Your task to perform on an android device: turn on airplane mode Image 0: 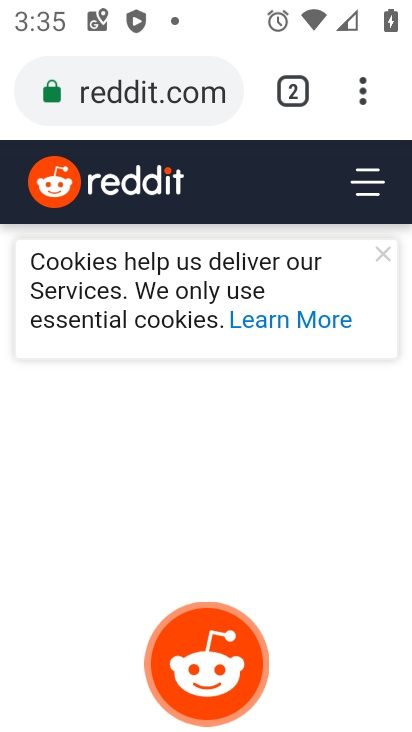
Step 0: drag from (355, 561) to (335, 248)
Your task to perform on an android device: turn on airplane mode Image 1: 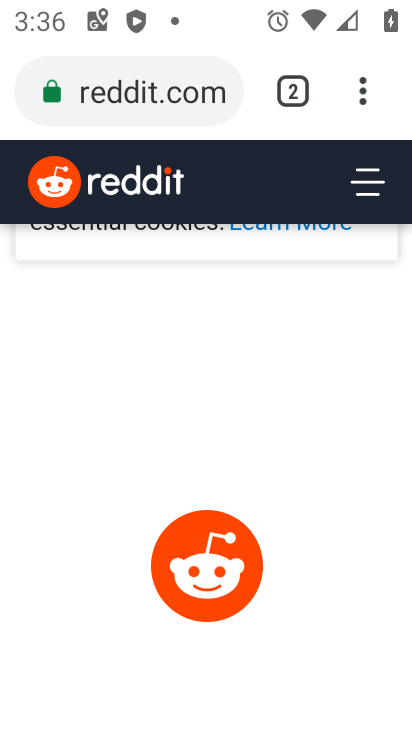
Step 1: press home button
Your task to perform on an android device: turn on airplane mode Image 2: 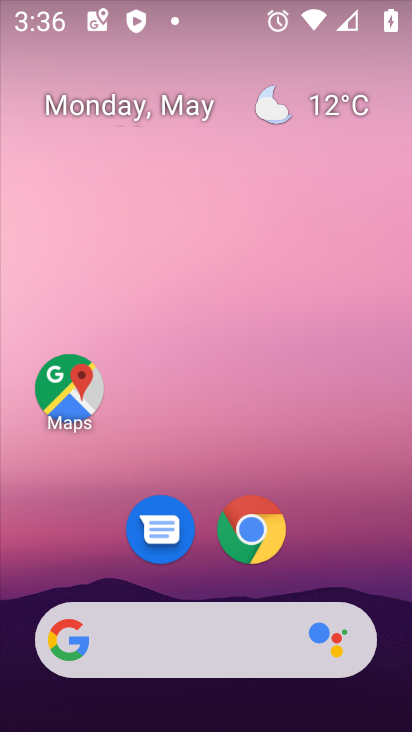
Step 2: drag from (317, 570) to (288, 63)
Your task to perform on an android device: turn on airplane mode Image 3: 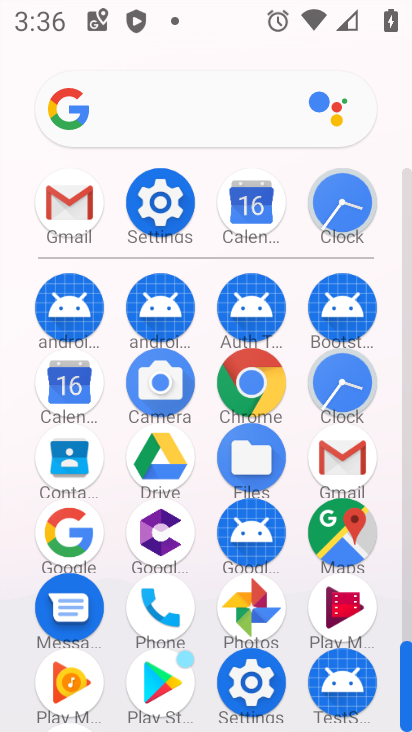
Step 3: click (159, 200)
Your task to perform on an android device: turn on airplane mode Image 4: 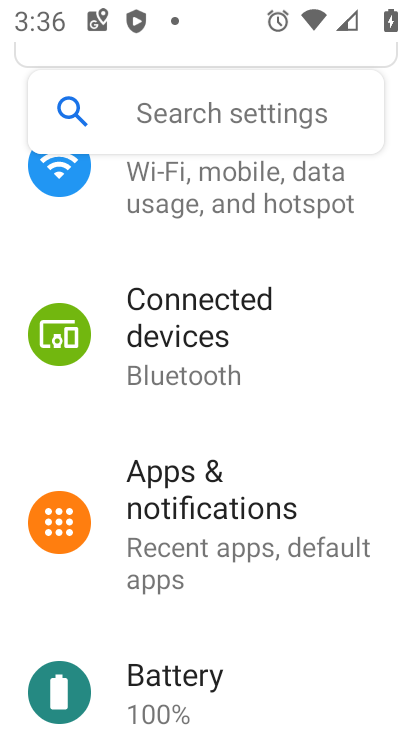
Step 4: drag from (219, 391) to (295, 619)
Your task to perform on an android device: turn on airplane mode Image 5: 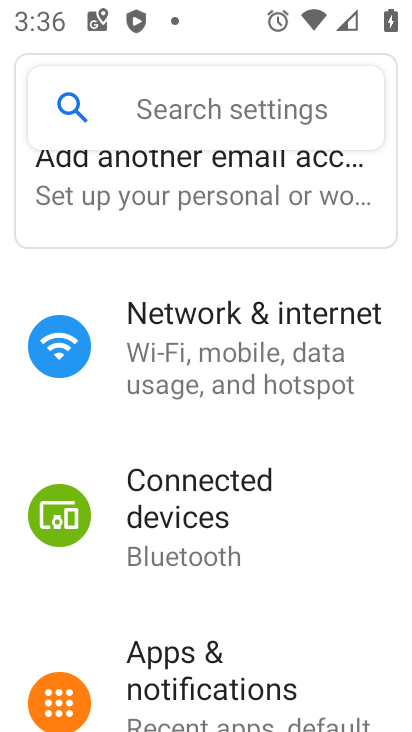
Step 5: click (287, 400)
Your task to perform on an android device: turn on airplane mode Image 6: 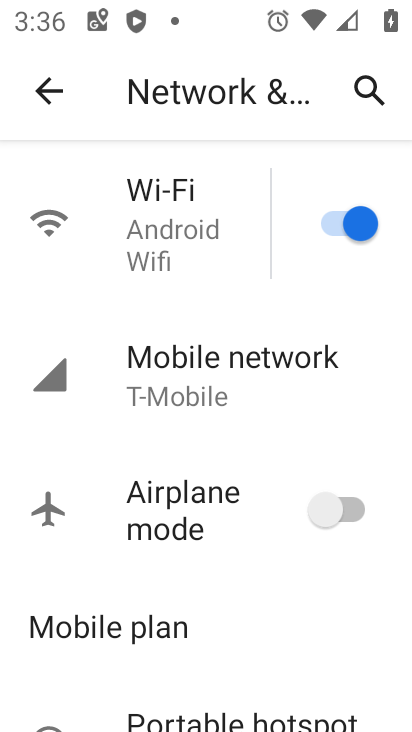
Step 6: click (312, 520)
Your task to perform on an android device: turn on airplane mode Image 7: 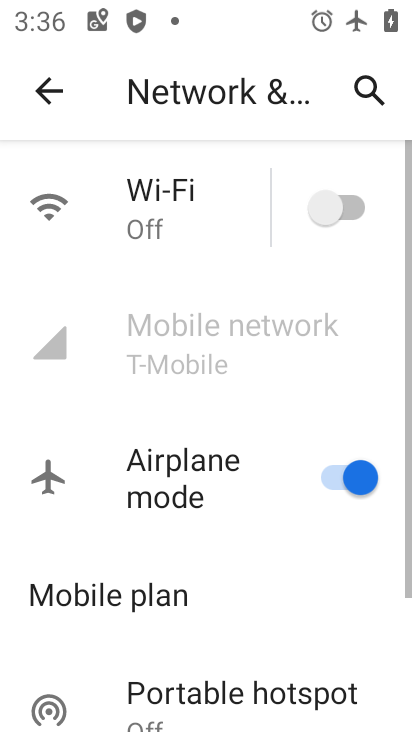
Step 7: task complete